Your task to perform on an android device: Go to privacy settings Image 0: 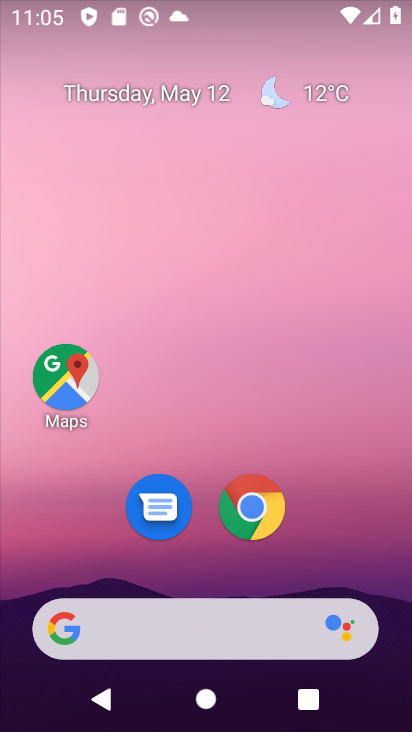
Step 0: drag from (199, 565) to (248, 30)
Your task to perform on an android device: Go to privacy settings Image 1: 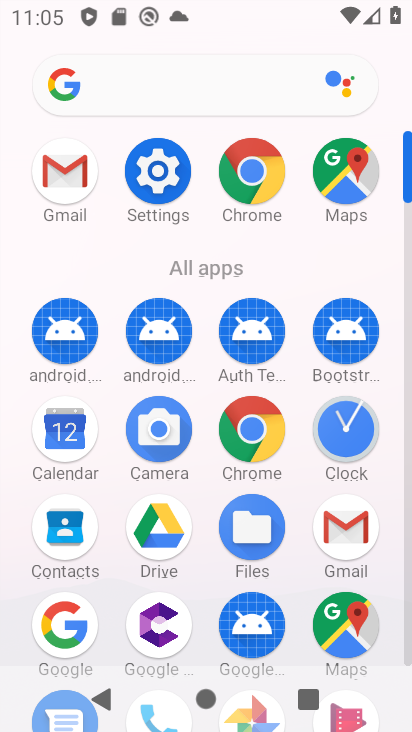
Step 1: click (169, 169)
Your task to perform on an android device: Go to privacy settings Image 2: 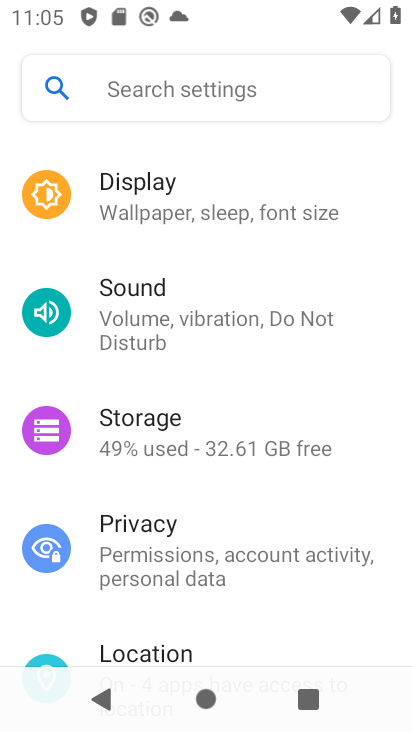
Step 2: drag from (233, 251) to (282, 173)
Your task to perform on an android device: Go to privacy settings Image 3: 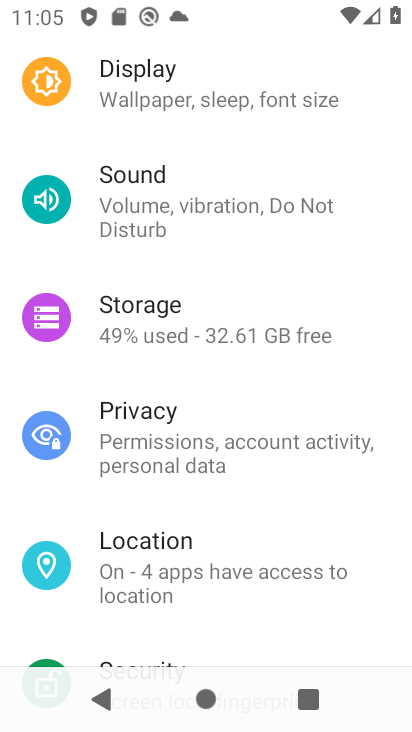
Step 3: click (172, 445)
Your task to perform on an android device: Go to privacy settings Image 4: 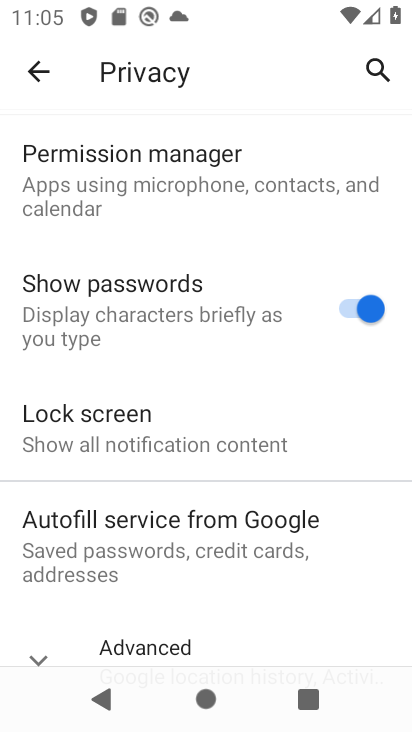
Step 4: task complete